Your task to perform on an android device: turn notification dots on Image 0: 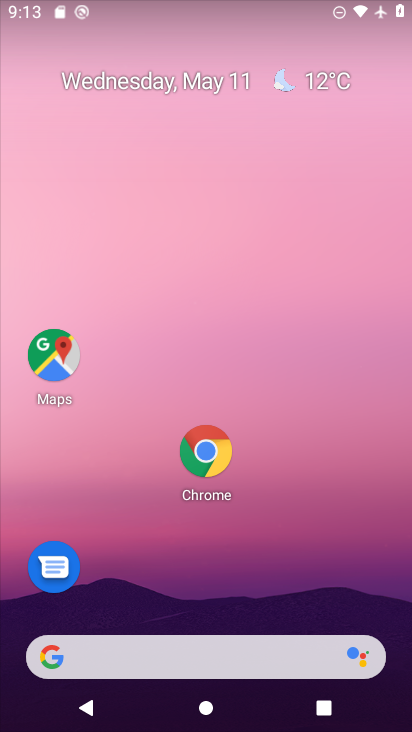
Step 0: drag from (223, 651) to (327, 53)
Your task to perform on an android device: turn notification dots on Image 1: 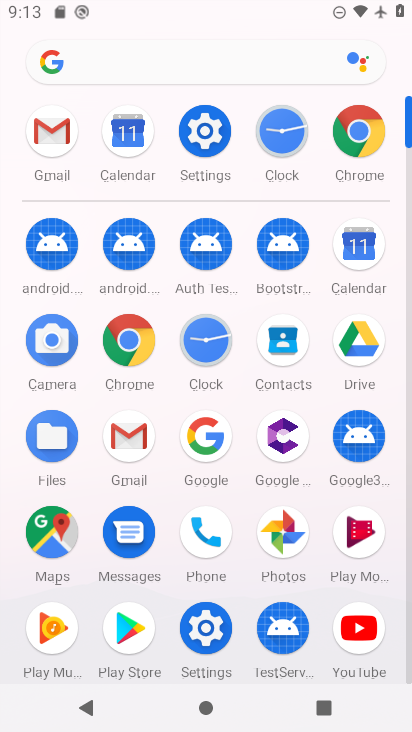
Step 1: click (206, 126)
Your task to perform on an android device: turn notification dots on Image 2: 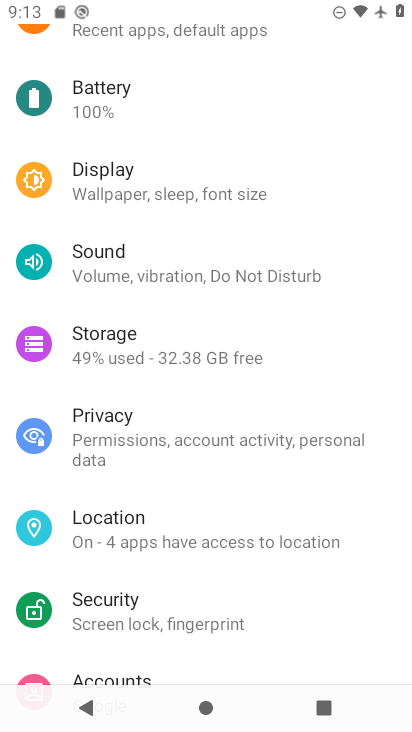
Step 2: drag from (268, 112) to (210, 581)
Your task to perform on an android device: turn notification dots on Image 3: 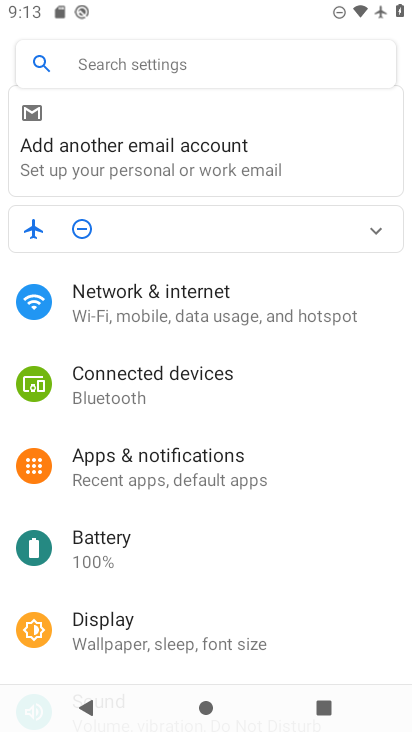
Step 3: click (175, 458)
Your task to perform on an android device: turn notification dots on Image 4: 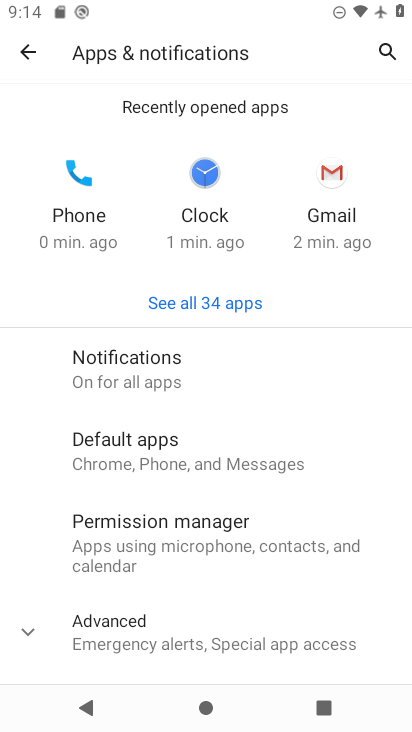
Step 4: click (127, 359)
Your task to perform on an android device: turn notification dots on Image 5: 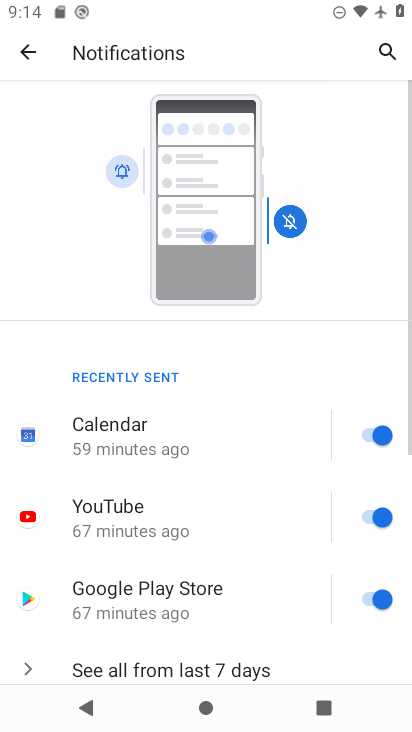
Step 5: drag from (208, 626) to (280, 202)
Your task to perform on an android device: turn notification dots on Image 6: 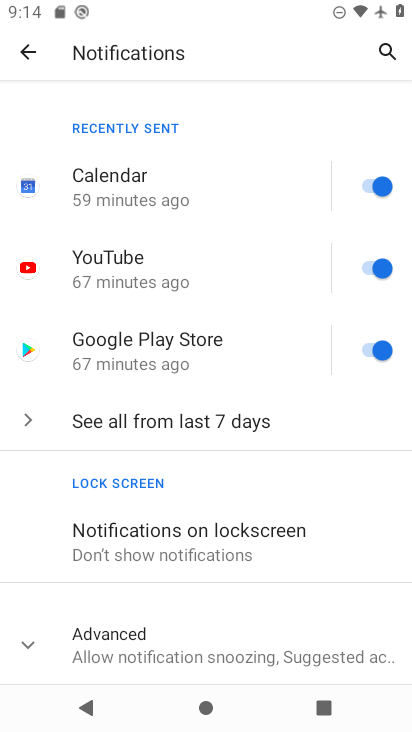
Step 6: click (127, 634)
Your task to perform on an android device: turn notification dots on Image 7: 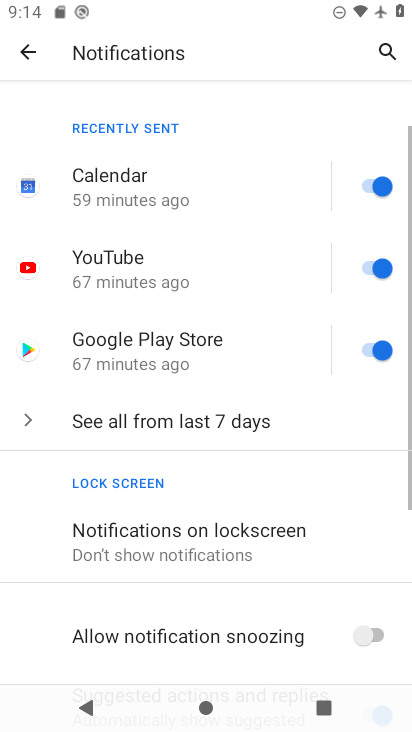
Step 7: task complete